Your task to perform on an android device: Go to Reddit.com Image 0: 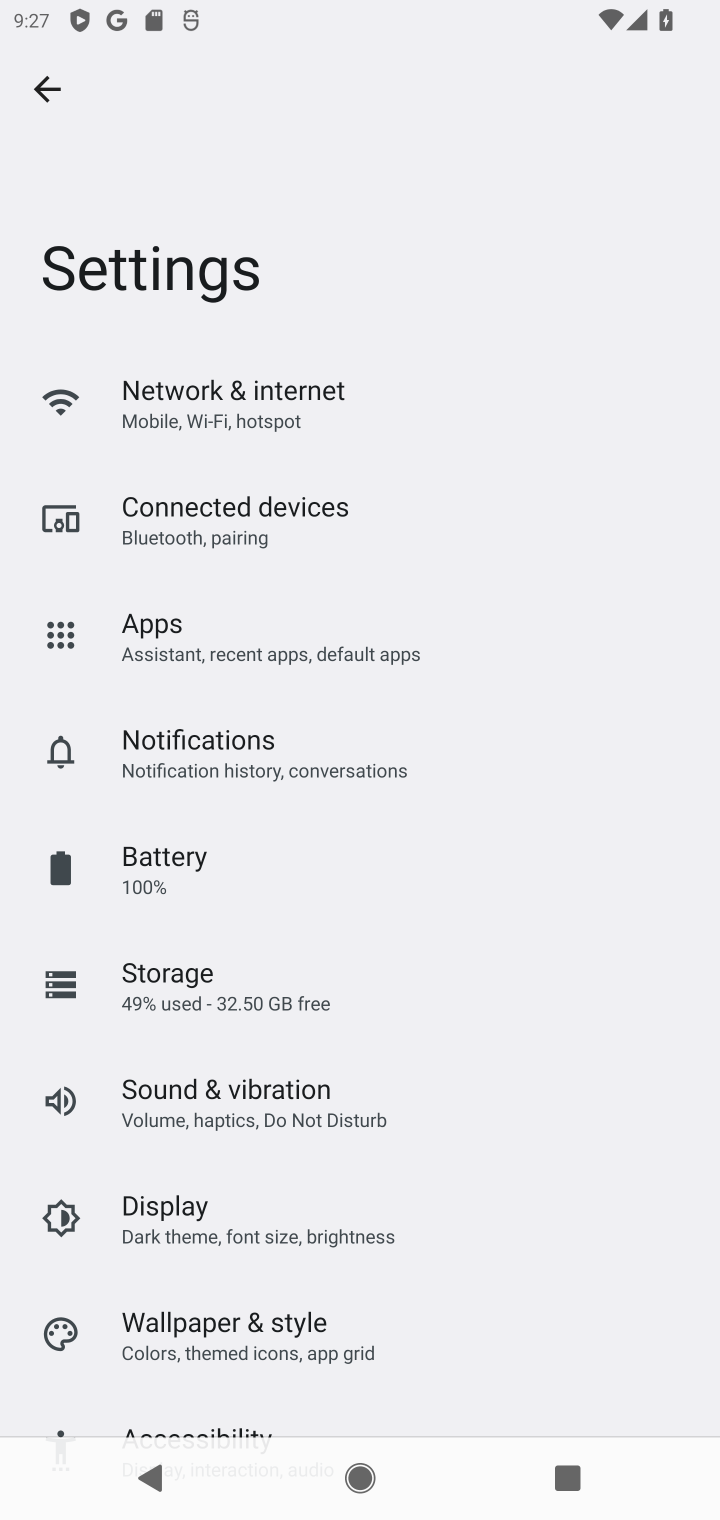
Step 0: press back button
Your task to perform on an android device: Go to Reddit.com Image 1: 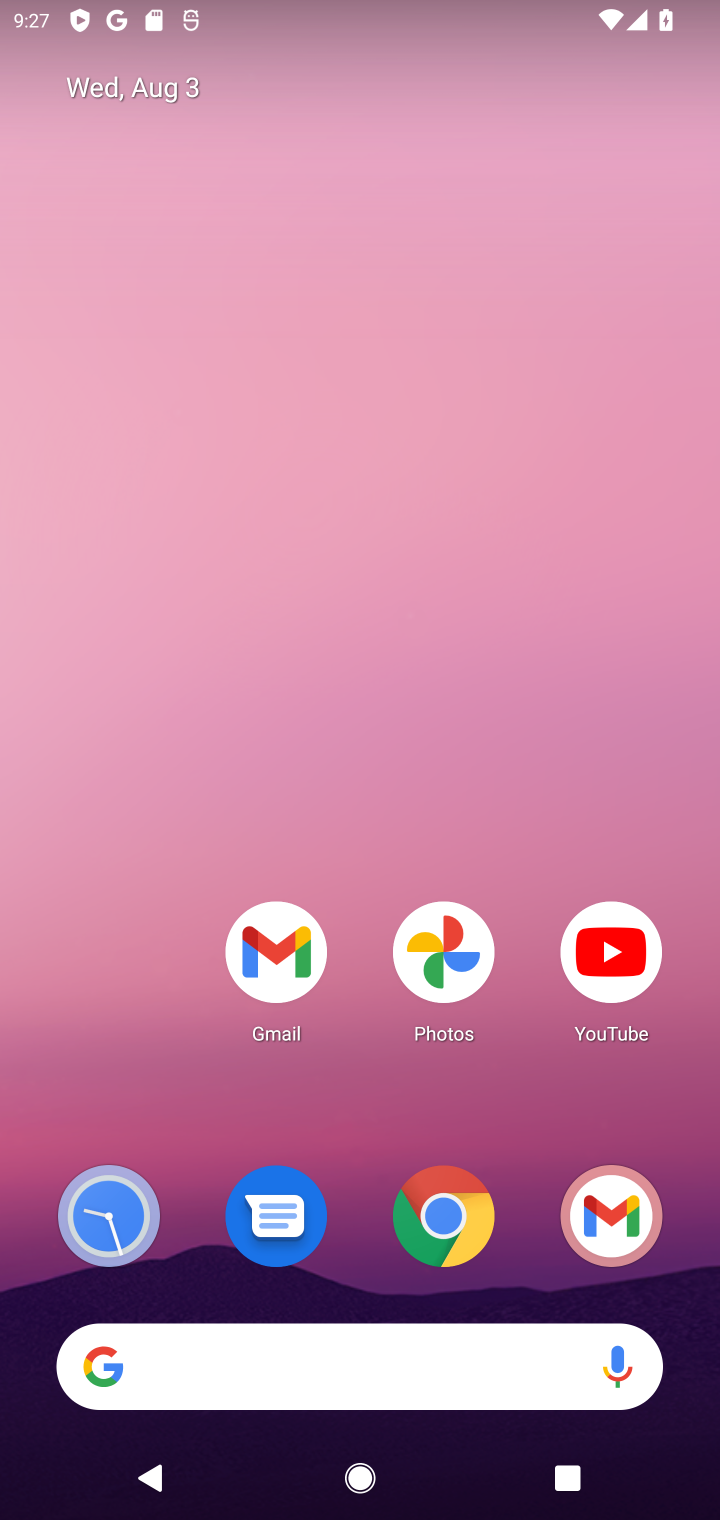
Step 1: click (437, 1223)
Your task to perform on an android device: Go to Reddit.com Image 2: 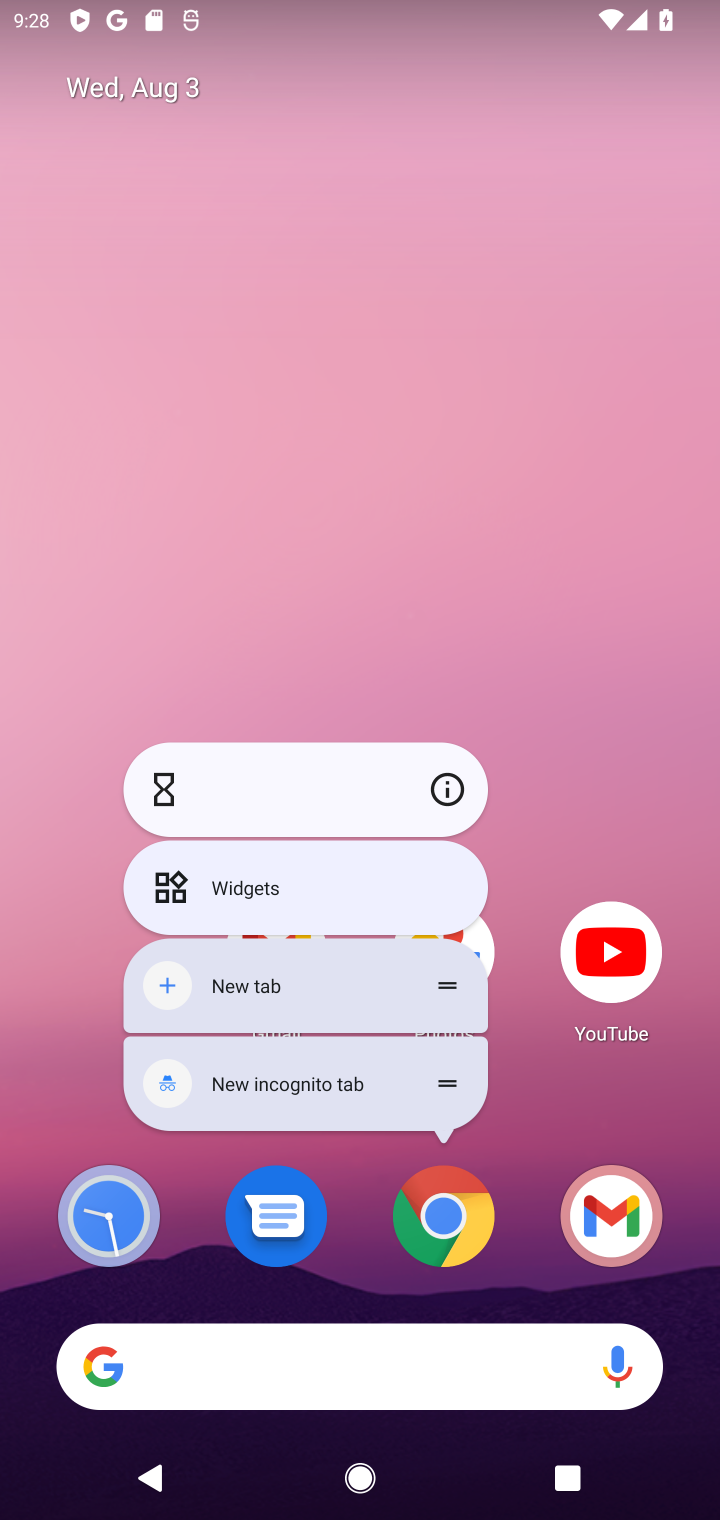
Step 2: click (439, 1208)
Your task to perform on an android device: Go to Reddit.com Image 3: 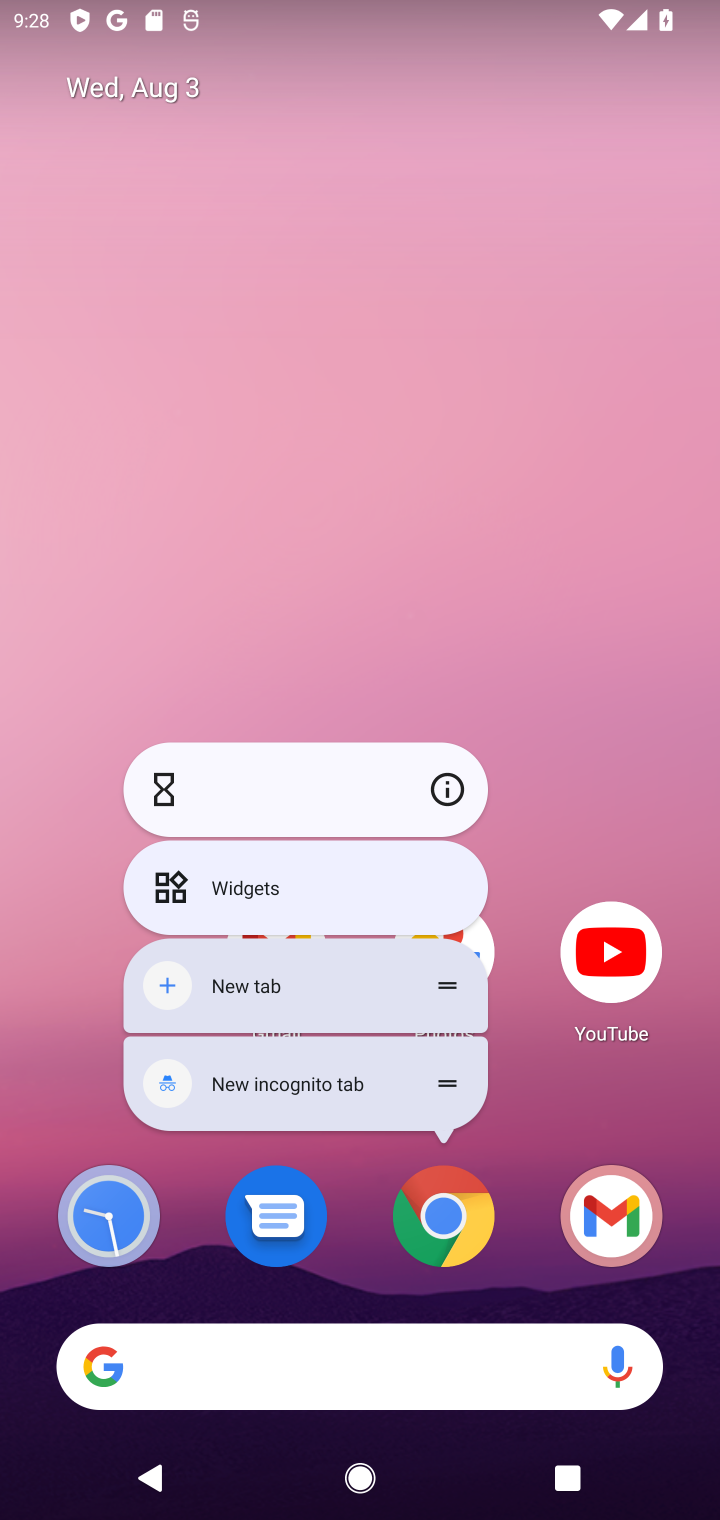
Step 3: click (439, 1208)
Your task to perform on an android device: Go to Reddit.com Image 4: 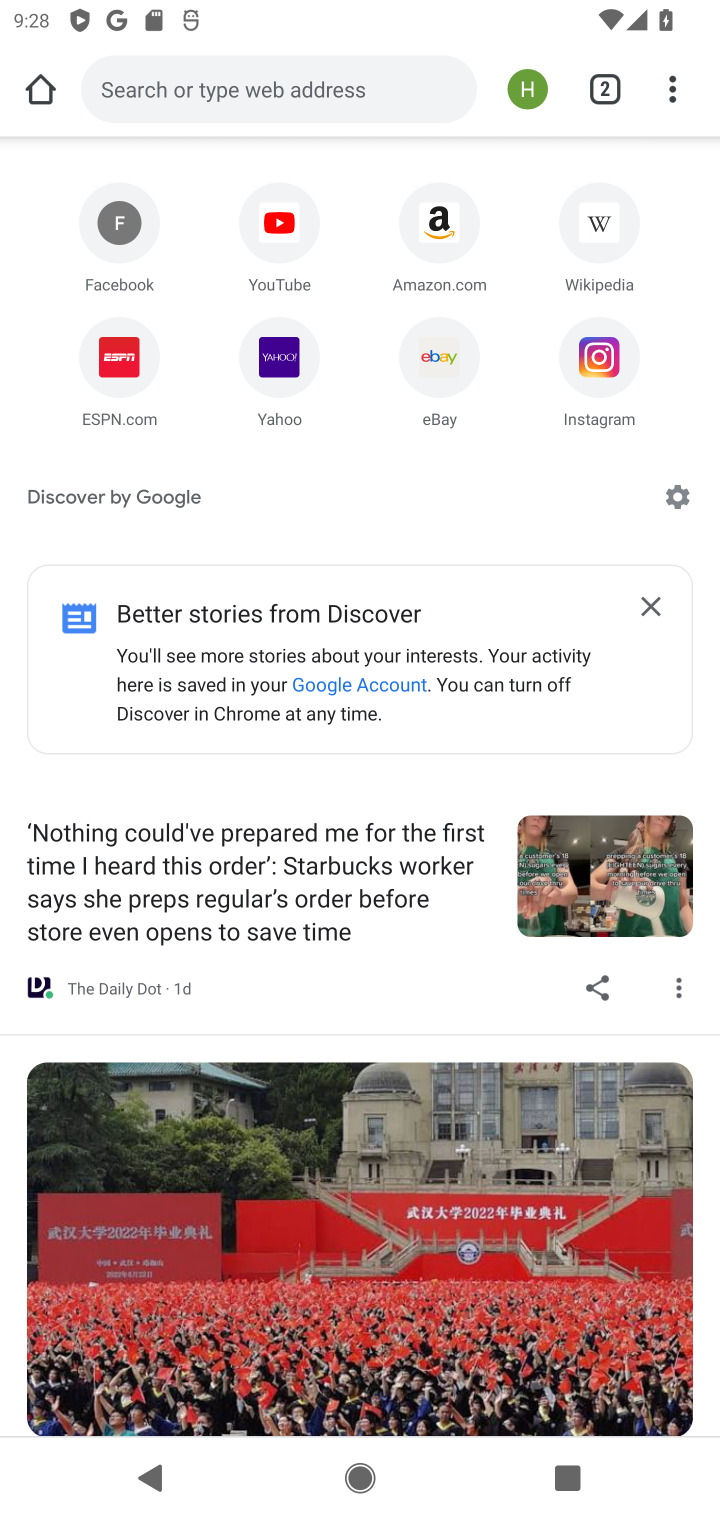
Step 4: click (289, 88)
Your task to perform on an android device: Go to Reddit.com Image 5: 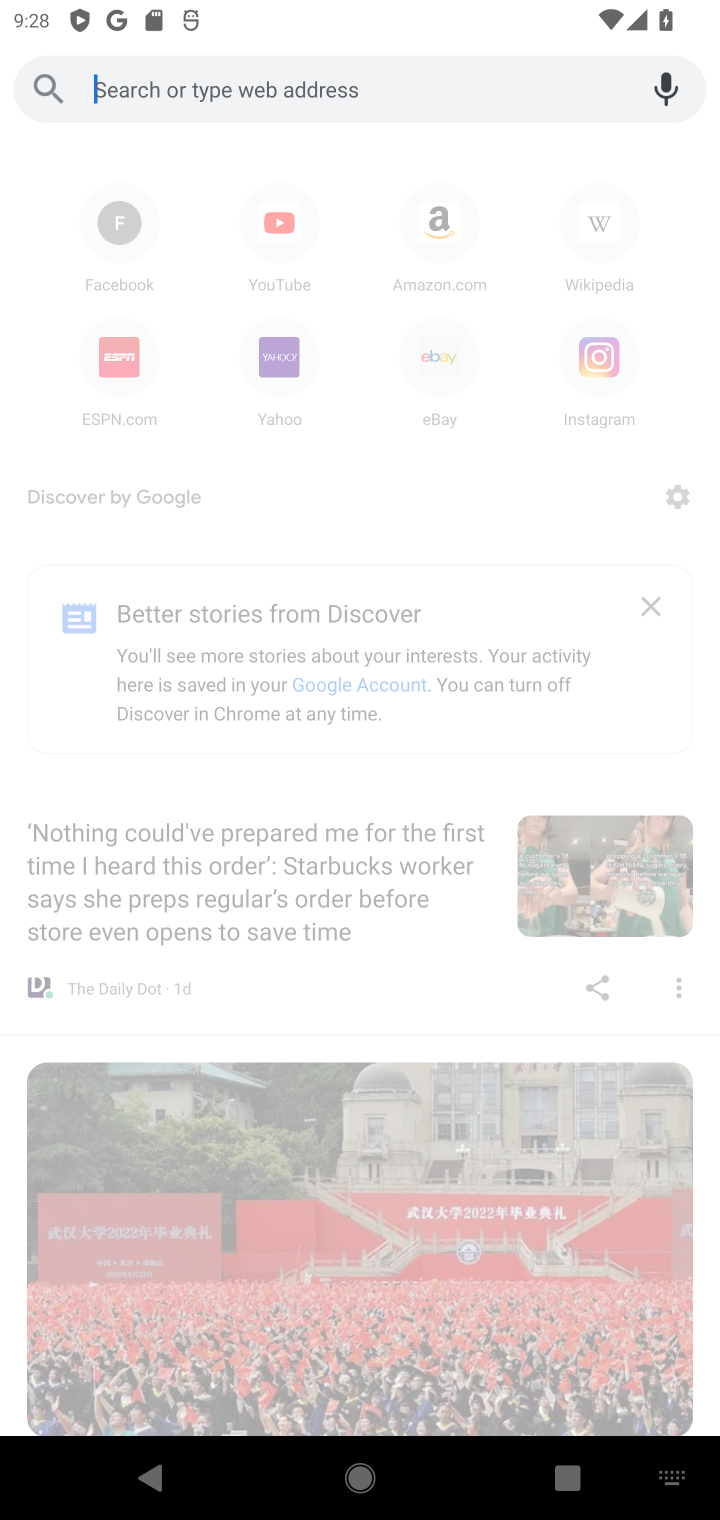
Step 5: type "reddit.com"
Your task to perform on an android device: Go to Reddit.com Image 6: 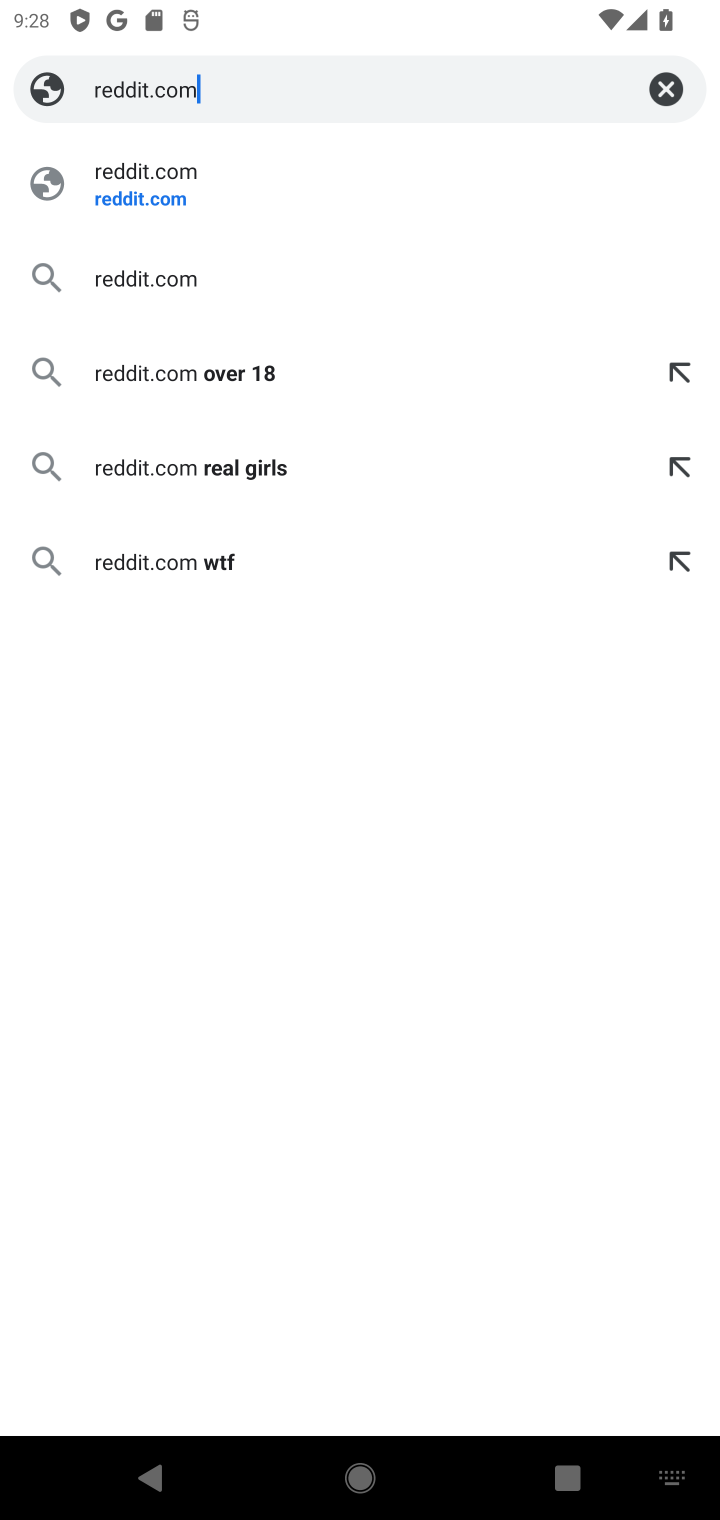
Step 6: click (173, 179)
Your task to perform on an android device: Go to Reddit.com Image 7: 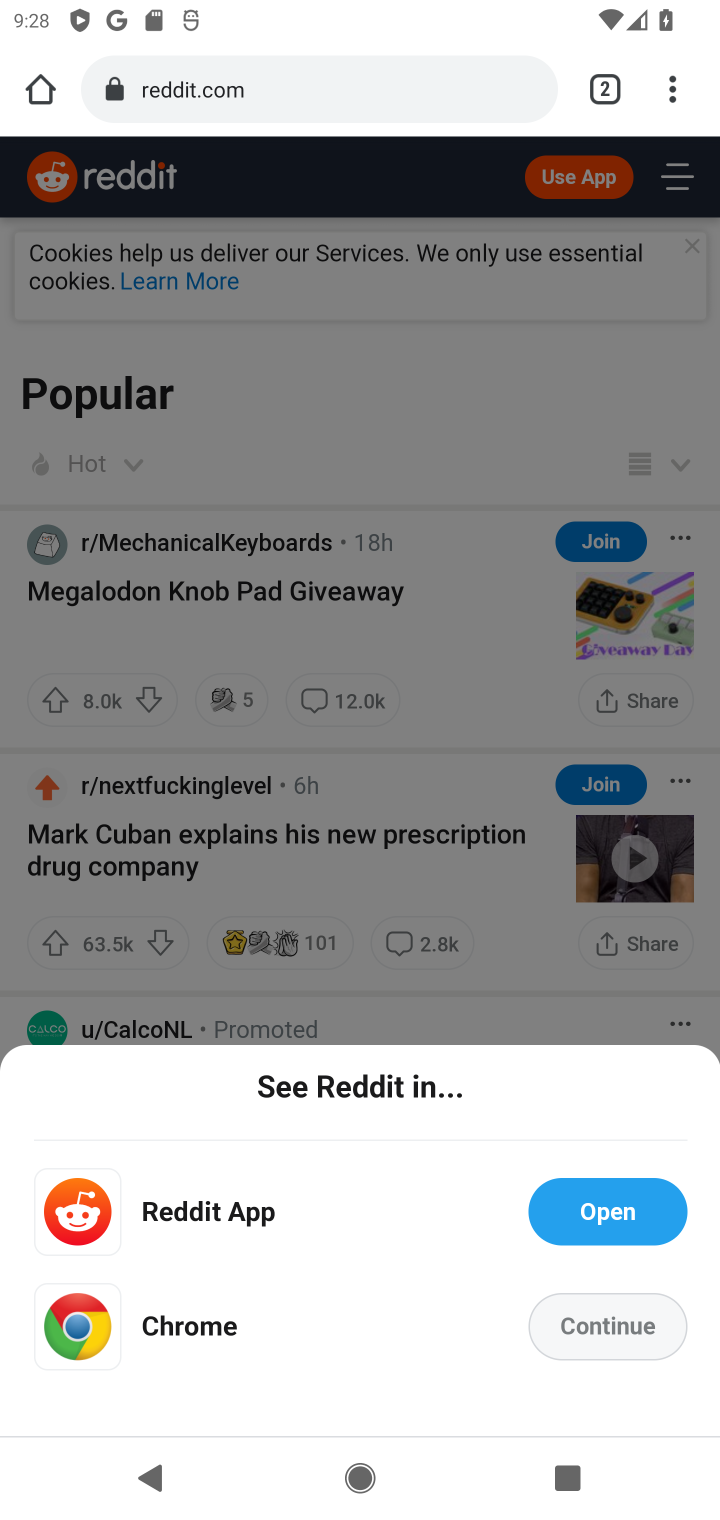
Step 7: task complete